Your task to perform on an android device: Open the phone app and click the voicemail tab. Image 0: 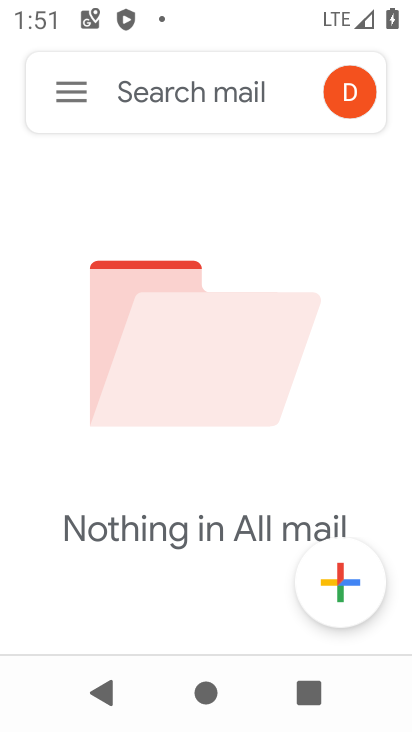
Step 0: press home button
Your task to perform on an android device: Open the phone app and click the voicemail tab. Image 1: 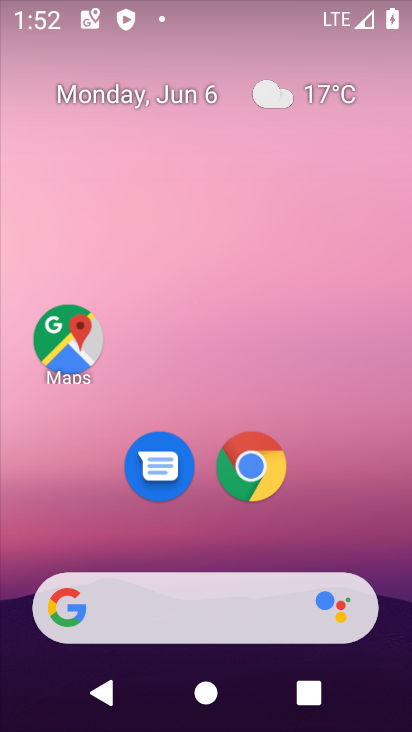
Step 1: drag from (208, 512) to (183, 41)
Your task to perform on an android device: Open the phone app and click the voicemail tab. Image 2: 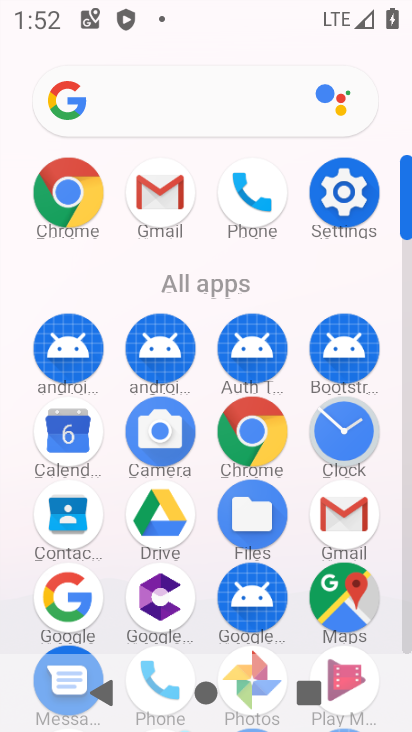
Step 2: drag from (376, 566) to (376, 198)
Your task to perform on an android device: Open the phone app and click the voicemail tab. Image 3: 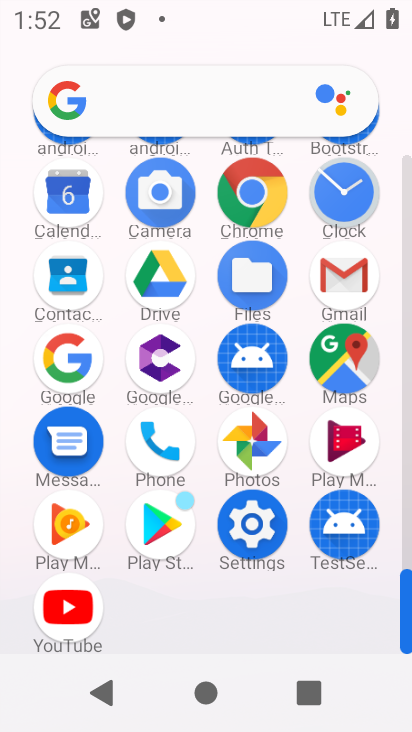
Step 3: click (153, 433)
Your task to perform on an android device: Open the phone app and click the voicemail tab. Image 4: 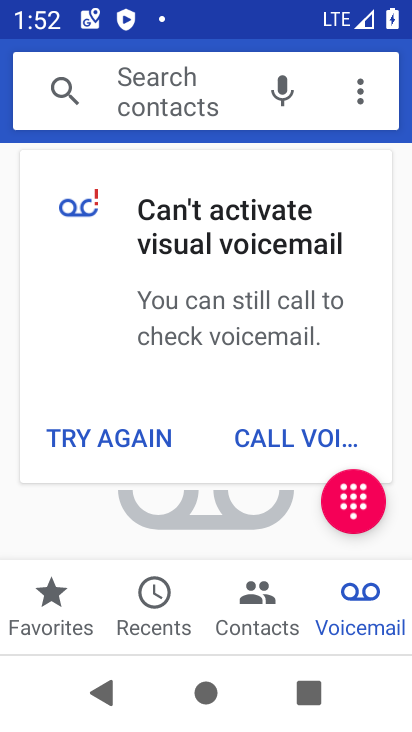
Step 4: click (357, 621)
Your task to perform on an android device: Open the phone app and click the voicemail tab. Image 5: 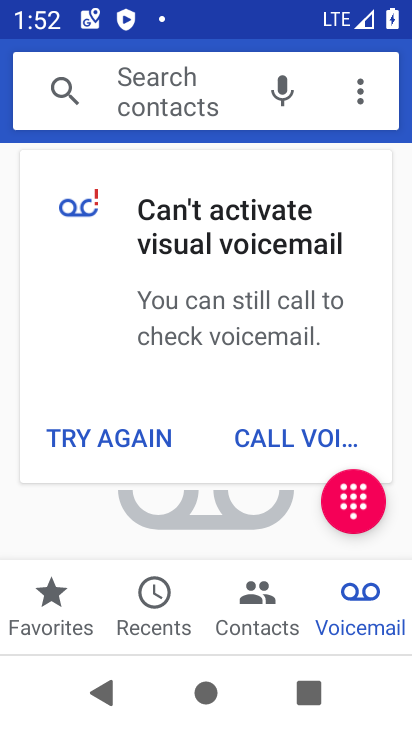
Step 5: task complete